Your task to perform on an android device: turn on improve location accuracy Image 0: 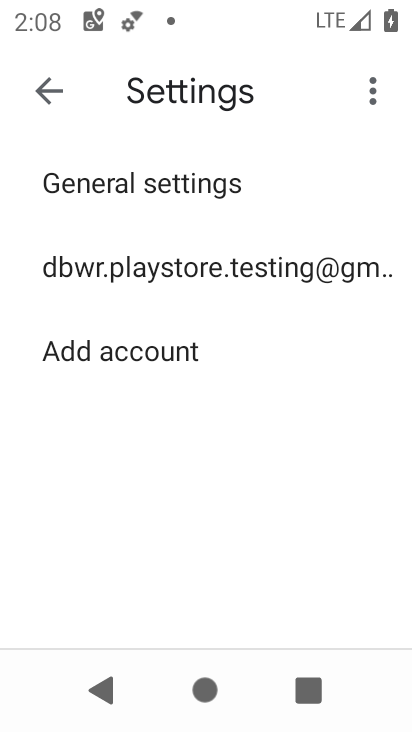
Step 0: press home button
Your task to perform on an android device: turn on improve location accuracy Image 1: 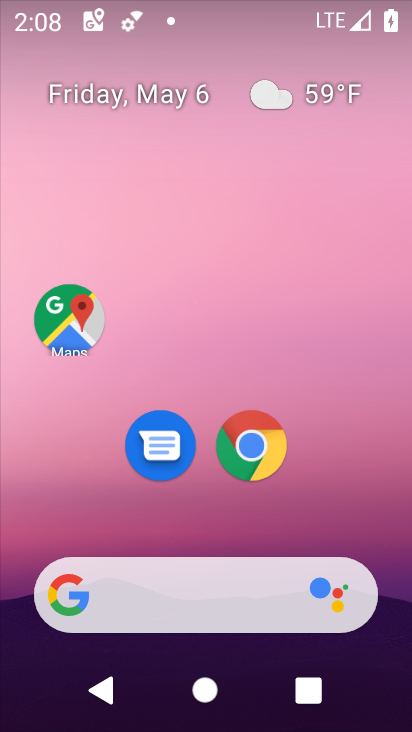
Step 1: drag from (347, 514) to (336, 155)
Your task to perform on an android device: turn on improve location accuracy Image 2: 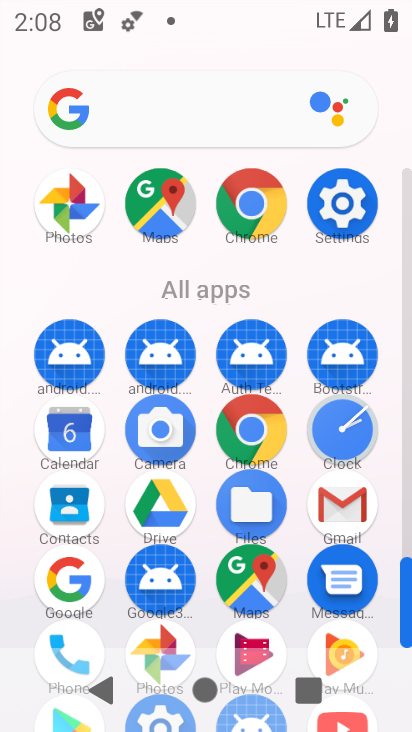
Step 2: click (336, 189)
Your task to perform on an android device: turn on improve location accuracy Image 3: 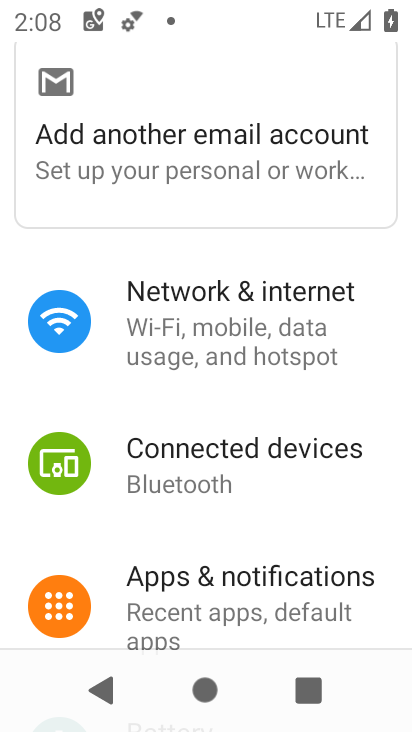
Step 3: drag from (260, 601) to (246, 296)
Your task to perform on an android device: turn on improve location accuracy Image 4: 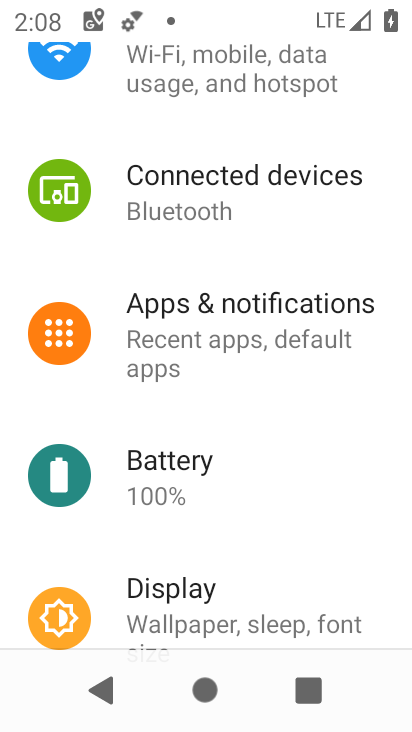
Step 4: drag from (273, 559) to (275, 254)
Your task to perform on an android device: turn on improve location accuracy Image 5: 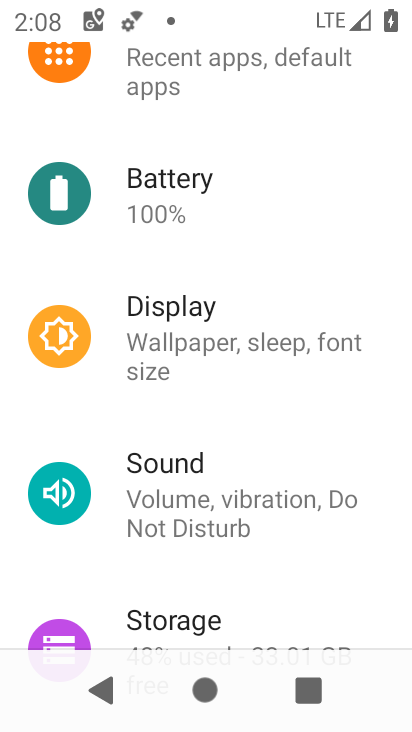
Step 5: drag from (213, 578) to (218, 419)
Your task to perform on an android device: turn on improve location accuracy Image 6: 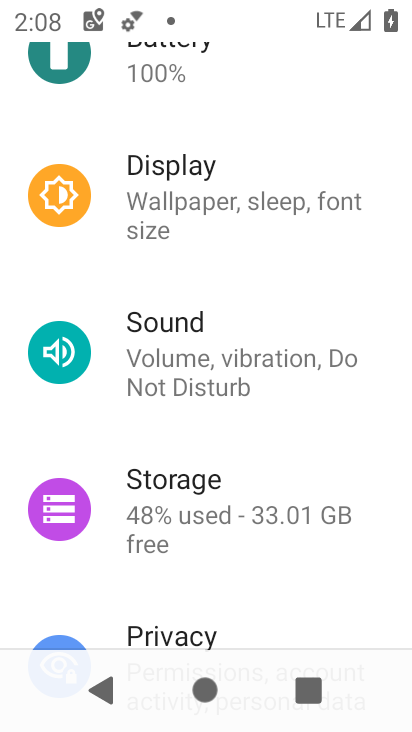
Step 6: drag from (213, 607) to (257, 412)
Your task to perform on an android device: turn on improve location accuracy Image 7: 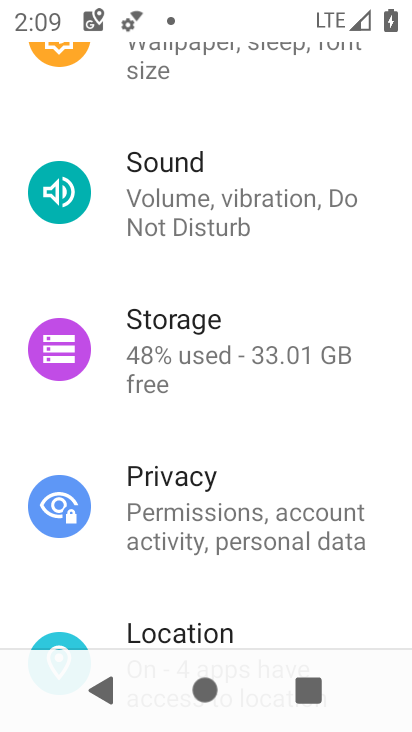
Step 7: drag from (229, 587) to (273, 376)
Your task to perform on an android device: turn on improve location accuracy Image 8: 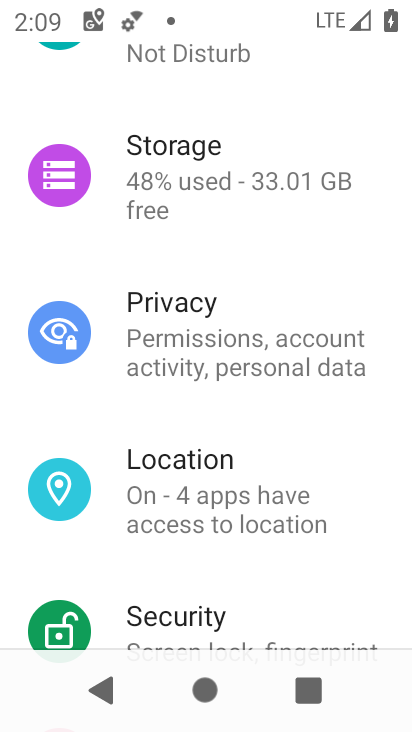
Step 8: click (269, 474)
Your task to perform on an android device: turn on improve location accuracy Image 9: 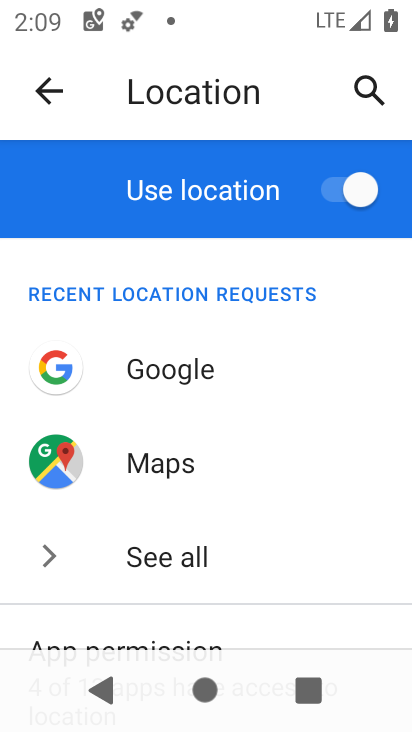
Step 9: drag from (237, 604) to (241, 324)
Your task to perform on an android device: turn on improve location accuracy Image 10: 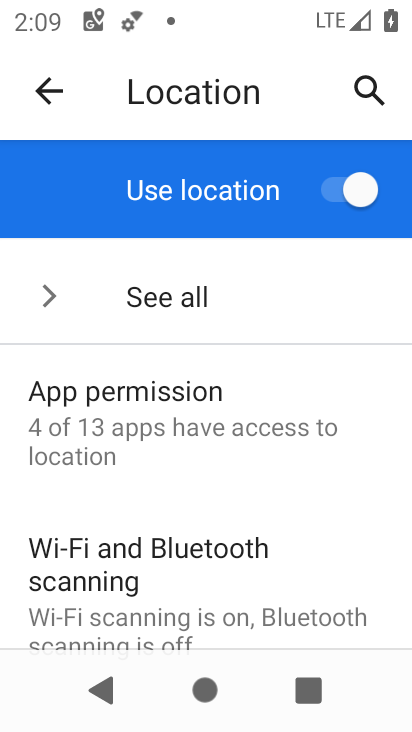
Step 10: drag from (170, 570) to (183, 217)
Your task to perform on an android device: turn on improve location accuracy Image 11: 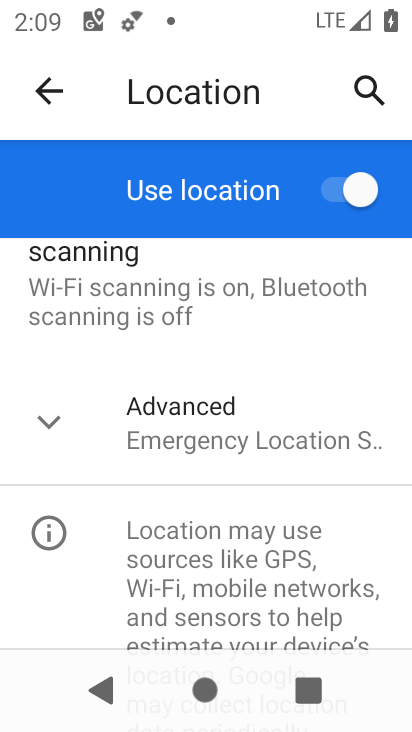
Step 11: click (185, 431)
Your task to perform on an android device: turn on improve location accuracy Image 12: 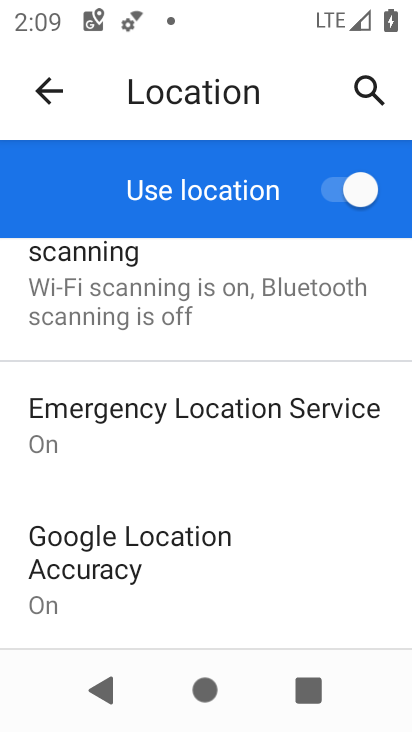
Step 12: click (196, 566)
Your task to perform on an android device: turn on improve location accuracy Image 13: 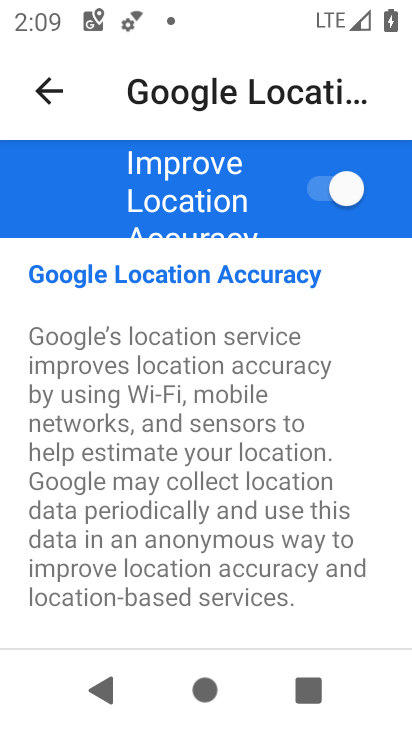
Step 13: task complete